Your task to perform on an android device: clear all cookies in the chrome app Image 0: 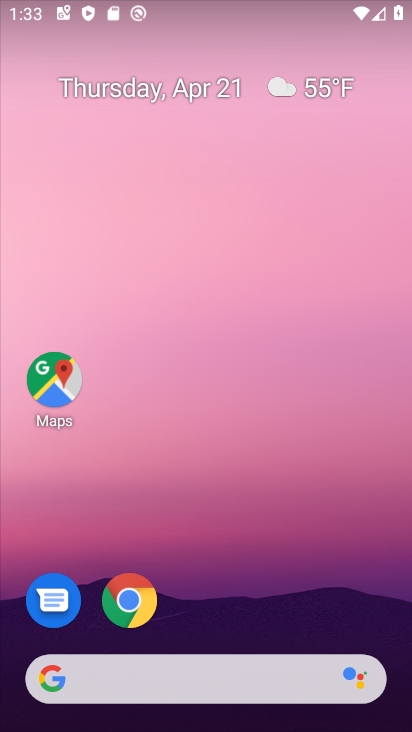
Step 0: drag from (246, 545) to (235, 223)
Your task to perform on an android device: clear all cookies in the chrome app Image 1: 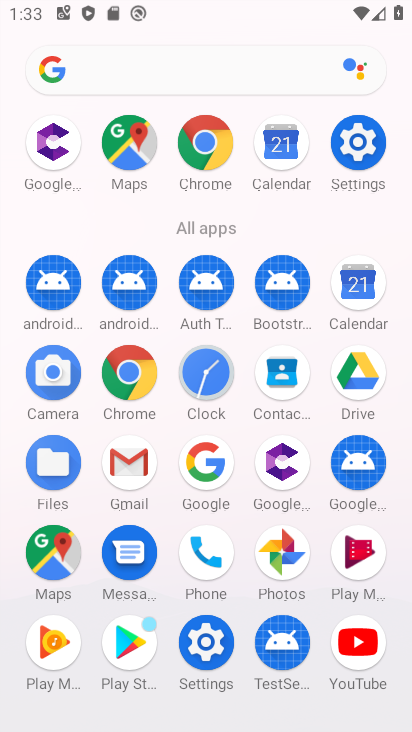
Step 1: click (200, 161)
Your task to perform on an android device: clear all cookies in the chrome app Image 2: 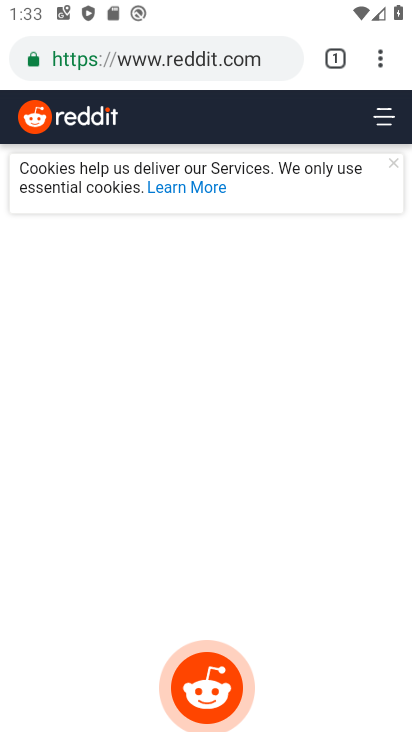
Step 2: drag from (385, 60) to (272, 330)
Your task to perform on an android device: clear all cookies in the chrome app Image 3: 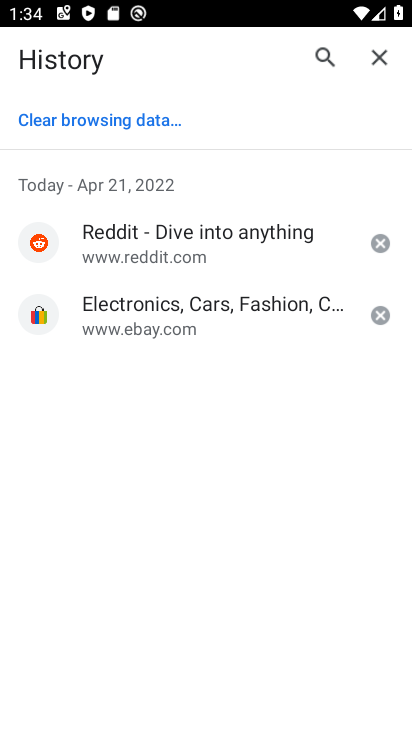
Step 3: click (97, 125)
Your task to perform on an android device: clear all cookies in the chrome app Image 4: 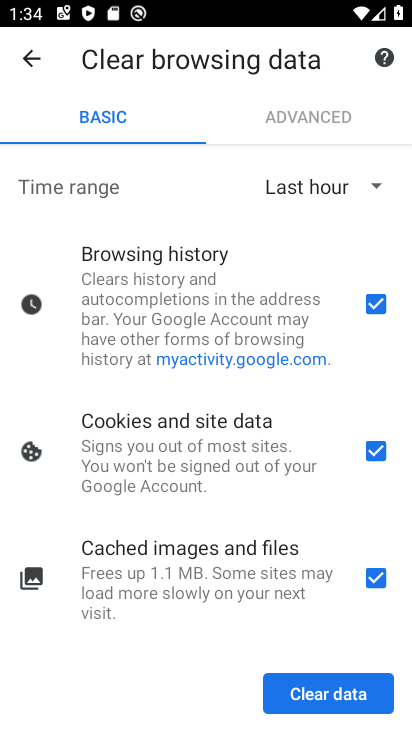
Step 4: click (388, 303)
Your task to perform on an android device: clear all cookies in the chrome app Image 5: 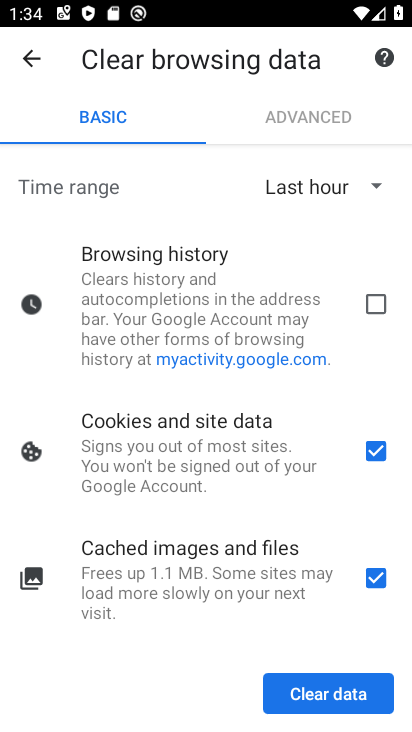
Step 5: click (343, 686)
Your task to perform on an android device: clear all cookies in the chrome app Image 6: 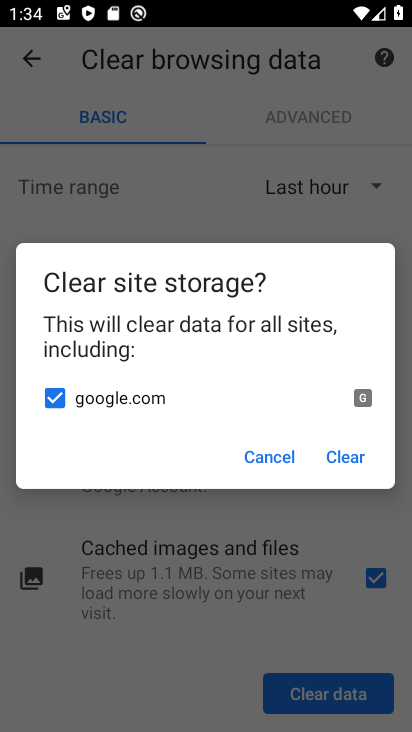
Step 6: click (336, 457)
Your task to perform on an android device: clear all cookies in the chrome app Image 7: 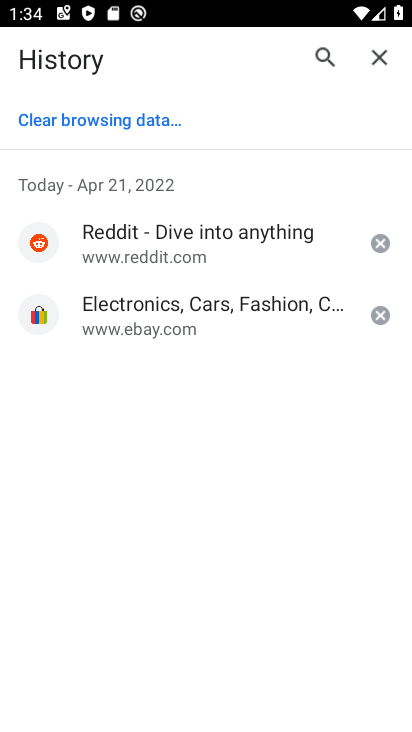
Step 7: task complete